Your task to perform on an android device: Open Google Image 0: 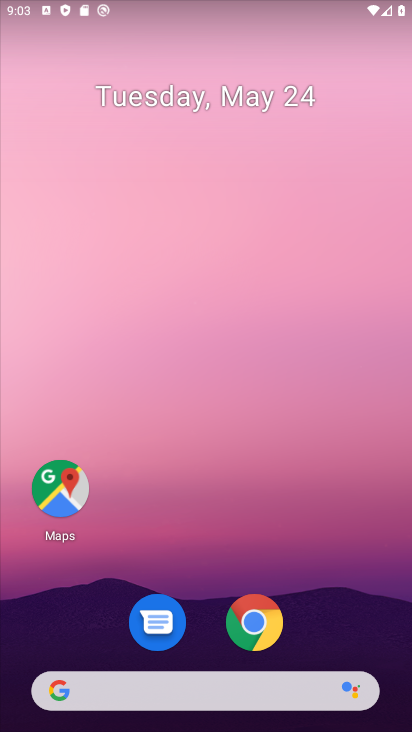
Step 0: press home button
Your task to perform on an android device: Open Google Image 1: 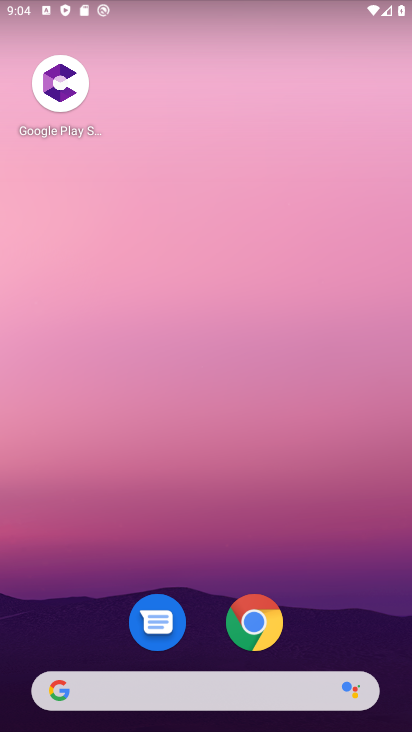
Step 1: click (47, 685)
Your task to perform on an android device: Open Google Image 2: 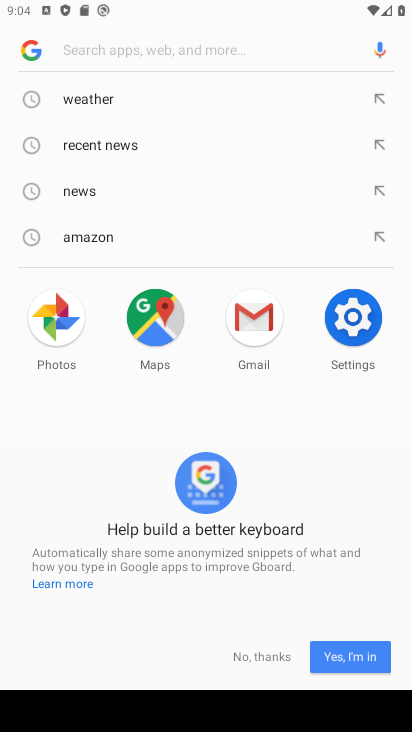
Step 2: click (28, 52)
Your task to perform on an android device: Open Google Image 3: 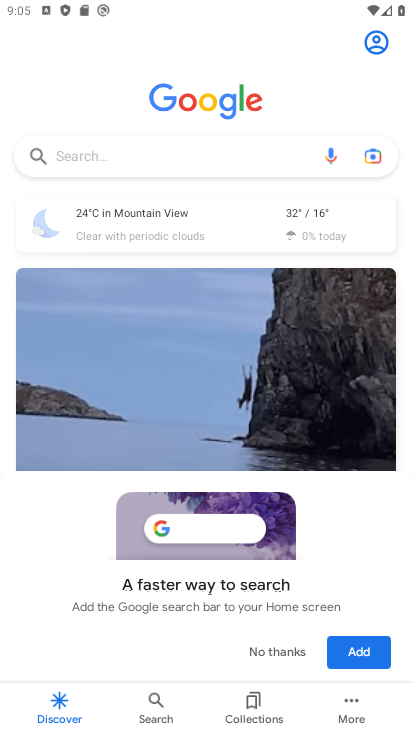
Step 3: task complete